Your task to perform on an android device: Open Youtube and go to "Your channel" Image 0: 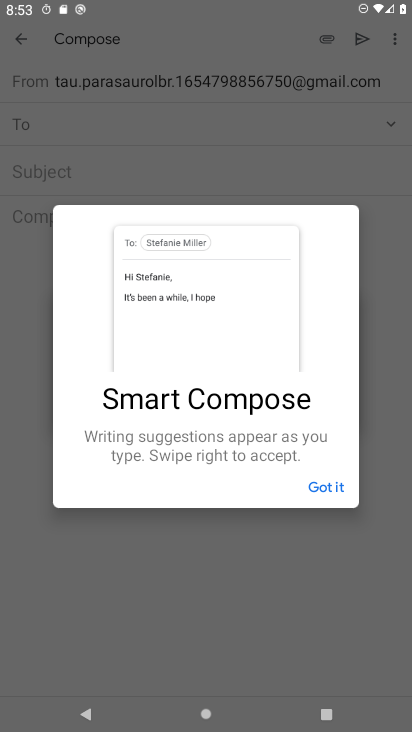
Step 0: click (336, 480)
Your task to perform on an android device: Open Youtube and go to "Your channel" Image 1: 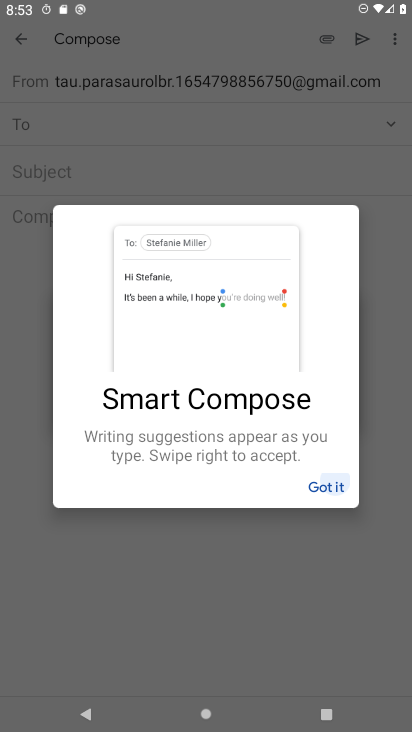
Step 1: click (334, 474)
Your task to perform on an android device: Open Youtube and go to "Your channel" Image 2: 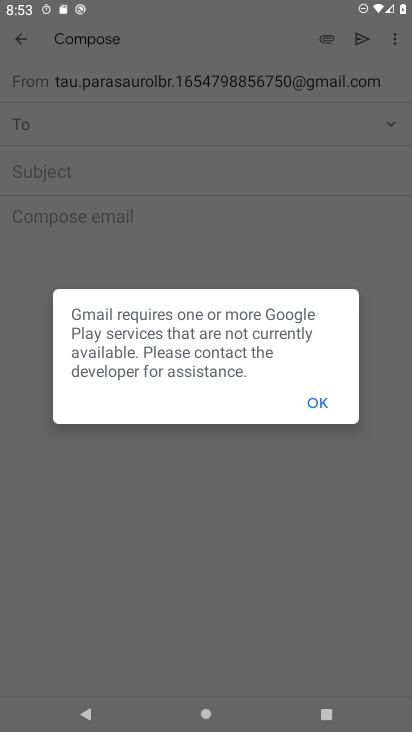
Step 2: click (334, 474)
Your task to perform on an android device: Open Youtube and go to "Your channel" Image 3: 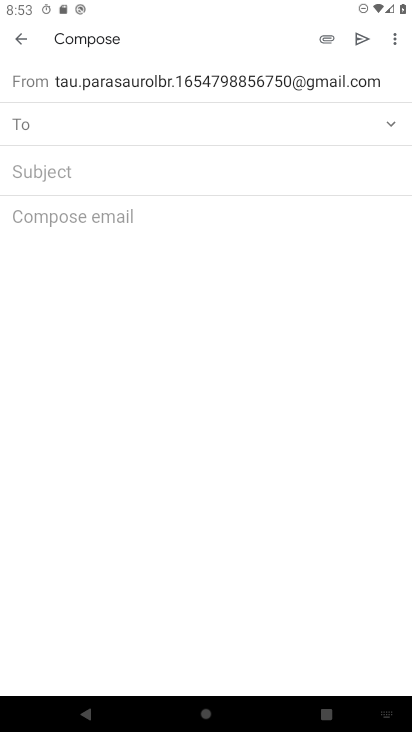
Step 3: click (18, 35)
Your task to perform on an android device: Open Youtube and go to "Your channel" Image 4: 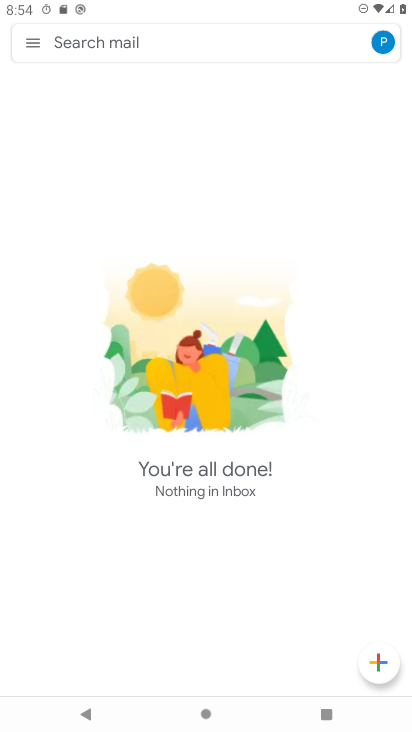
Step 4: press back button
Your task to perform on an android device: Open Youtube and go to "Your channel" Image 5: 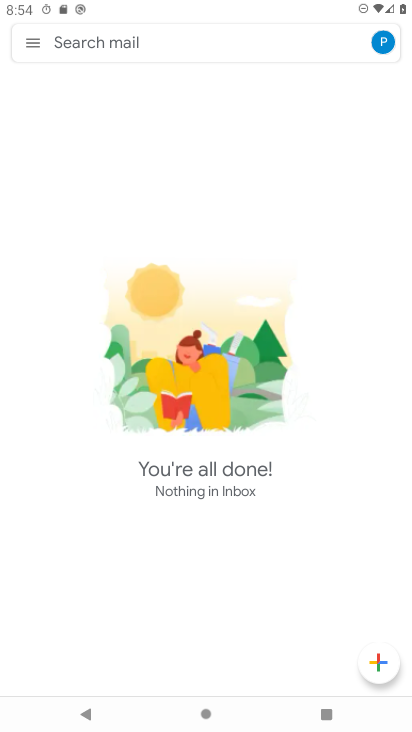
Step 5: press back button
Your task to perform on an android device: Open Youtube and go to "Your channel" Image 6: 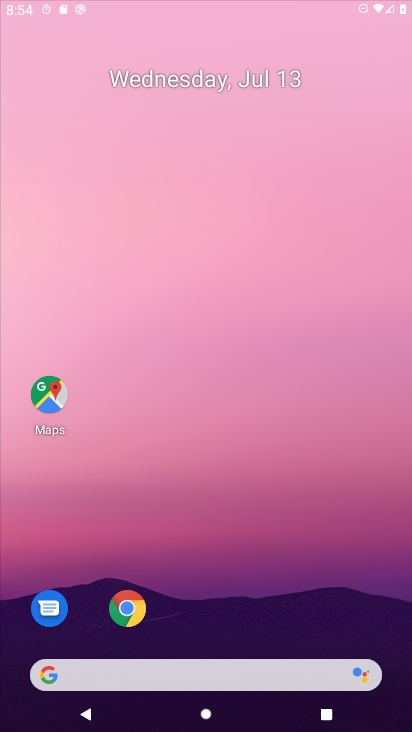
Step 6: press back button
Your task to perform on an android device: Open Youtube and go to "Your channel" Image 7: 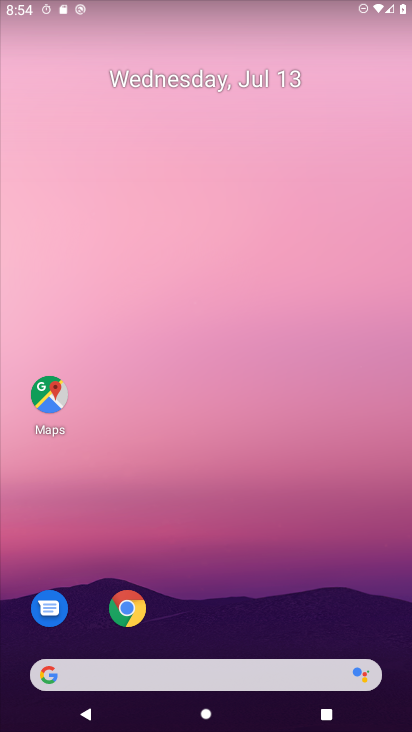
Step 7: drag from (225, 472) to (201, 249)
Your task to perform on an android device: Open Youtube and go to "Your channel" Image 8: 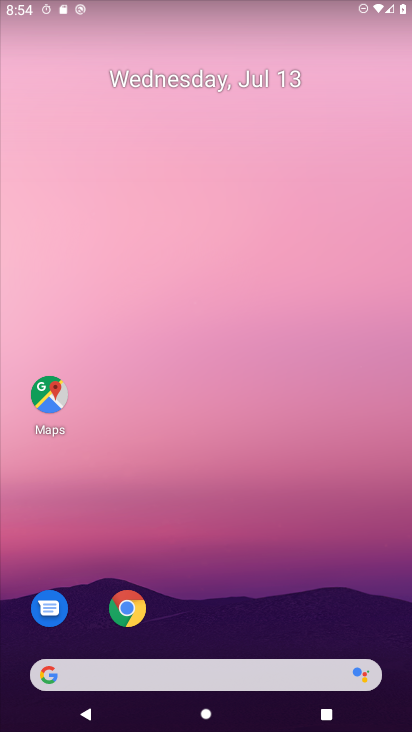
Step 8: drag from (215, 615) to (165, 187)
Your task to perform on an android device: Open Youtube and go to "Your channel" Image 9: 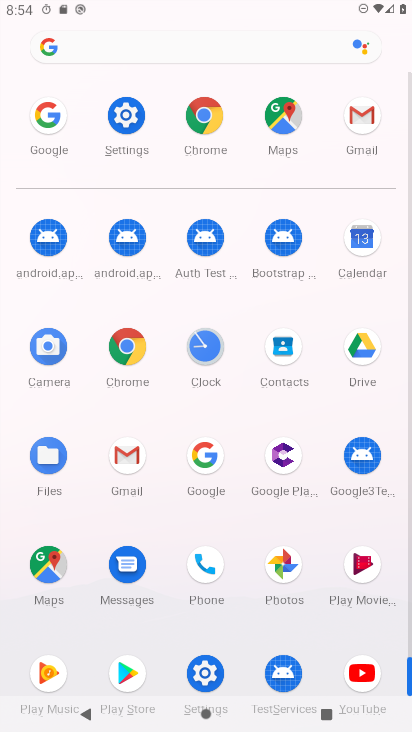
Step 9: click (346, 678)
Your task to perform on an android device: Open Youtube and go to "Your channel" Image 10: 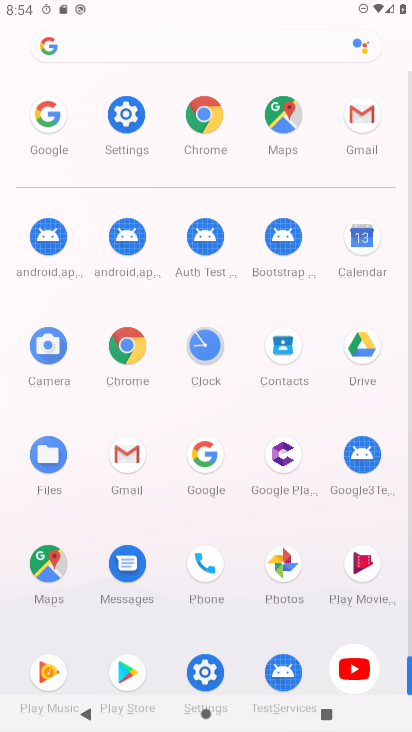
Step 10: click (347, 678)
Your task to perform on an android device: Open Youtube and go to "Your channel" Image 11: 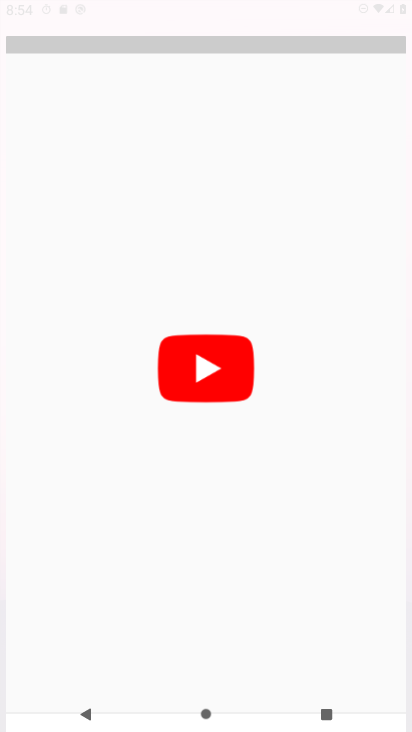
Step 11: click (348, 678)
Your task to perform on an android device: Open Youtube and go to "Your channel" Image 12: 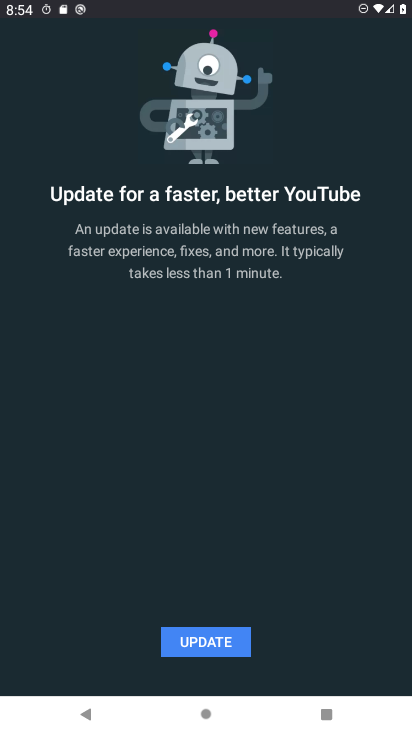
Step 12: click (210, 631)
Your task to perform on an android device: Open Youtube and go to "Your channel" Image 13: 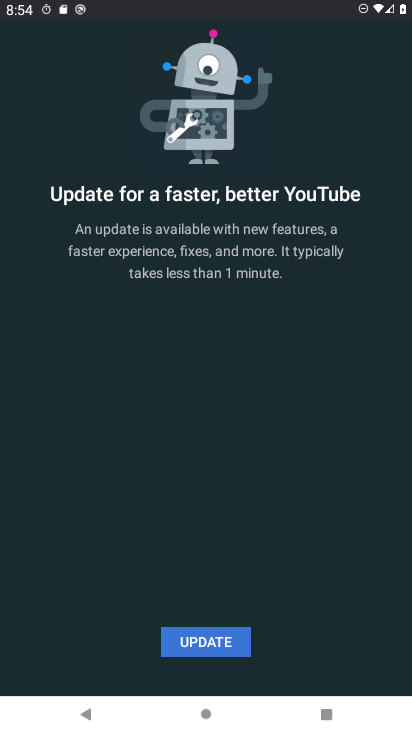
Step 13: click (208, 633)
Your task to perform on an android device: Open Youtube and go to "Your channel" Image 14: 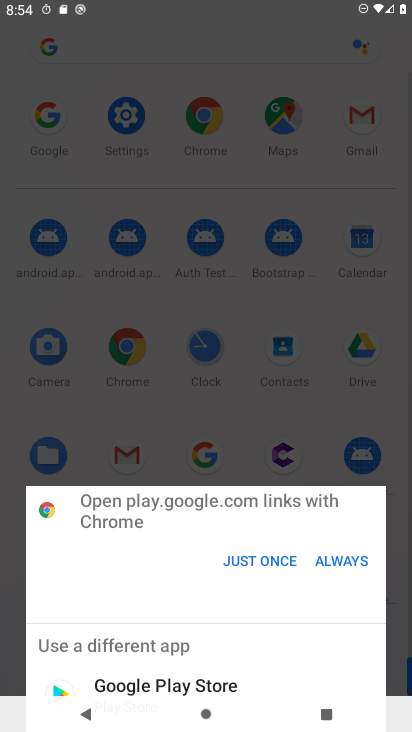
Step 14: click (269, 555)
Your task to perform on an android device: Open Youtube and go to "Your channel" Image 15: 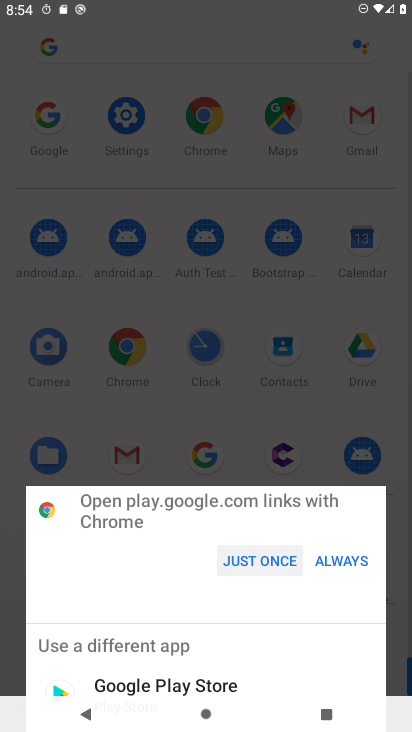
Step 15: click (269, 555)
Your task to perform on an android device: Open Youtube and go to "Your channel" Image 16: 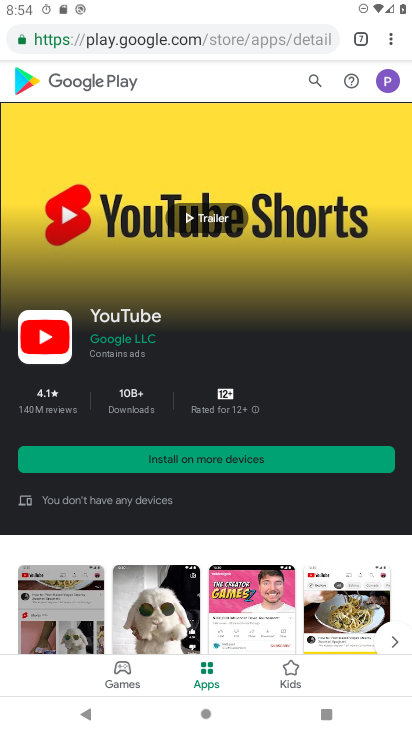
Step 16: task complete